Your task to perform on an android device: View the shopping cart on ebay.com. Add usb-a to usb-b to the cart on ebay.com Image 0: 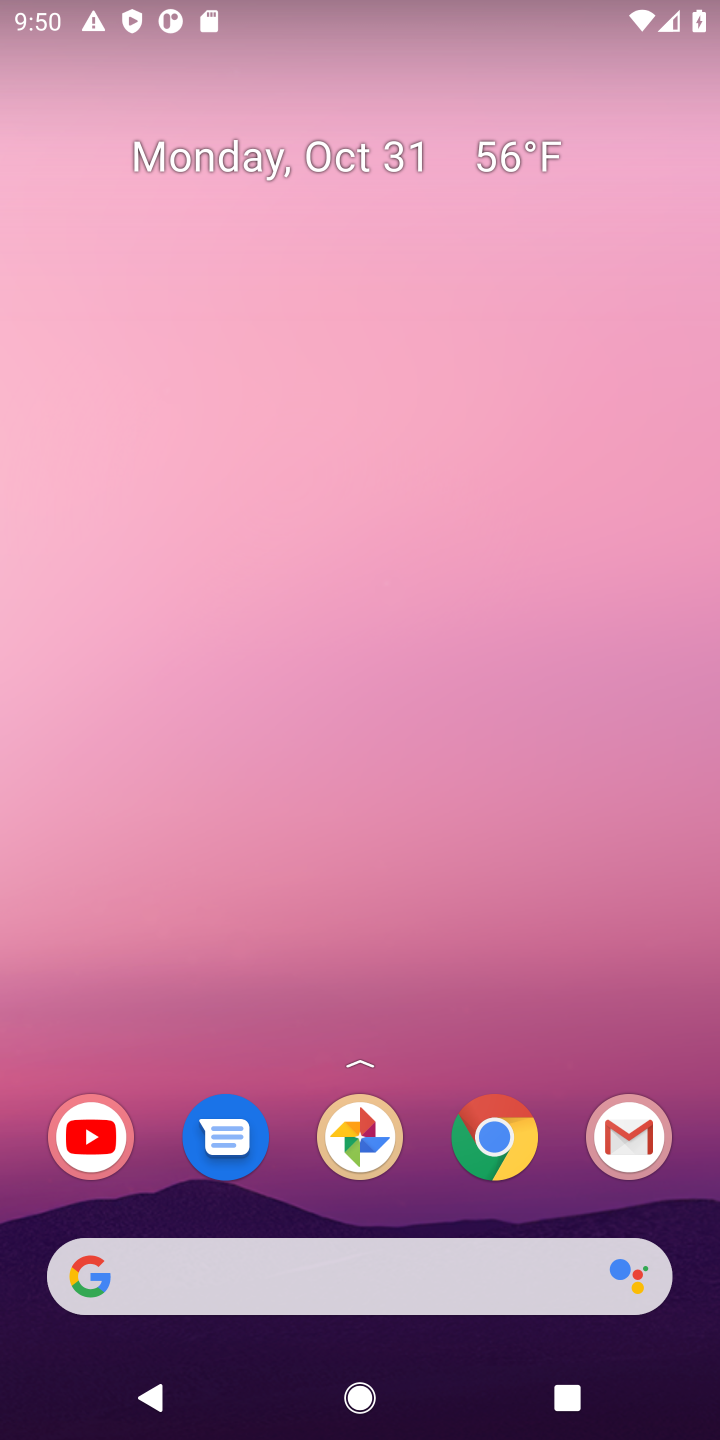
Step 0: click (497, 1140)
Your task to perform on an android device: View the shopping cart on ebay.com. Add usb-a to usb-b to the cart on ebay.com Image 1: 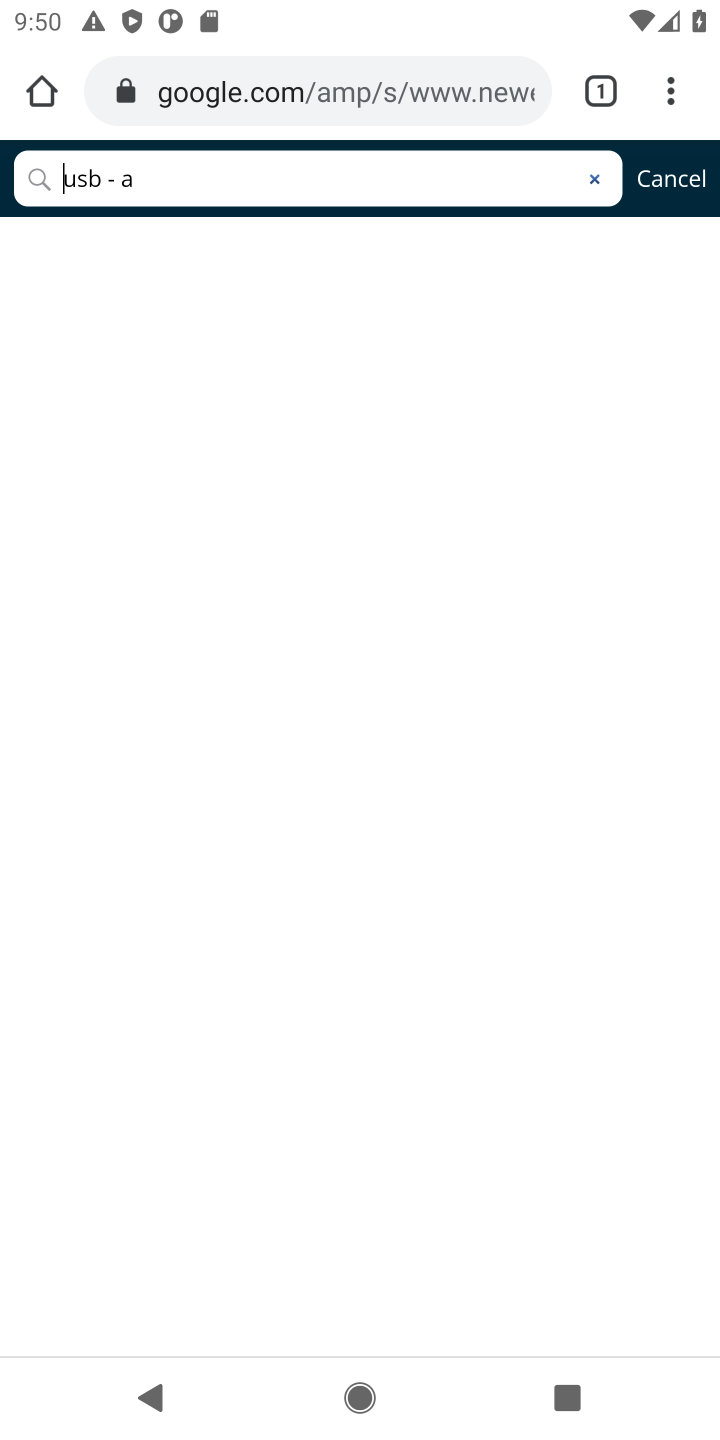
Step 1: click (191, 96)
Your task to perform on an android device: View the shopping cart on ebay.com. Add usb-a to usb-b to the cart on ebay.com Image 2: 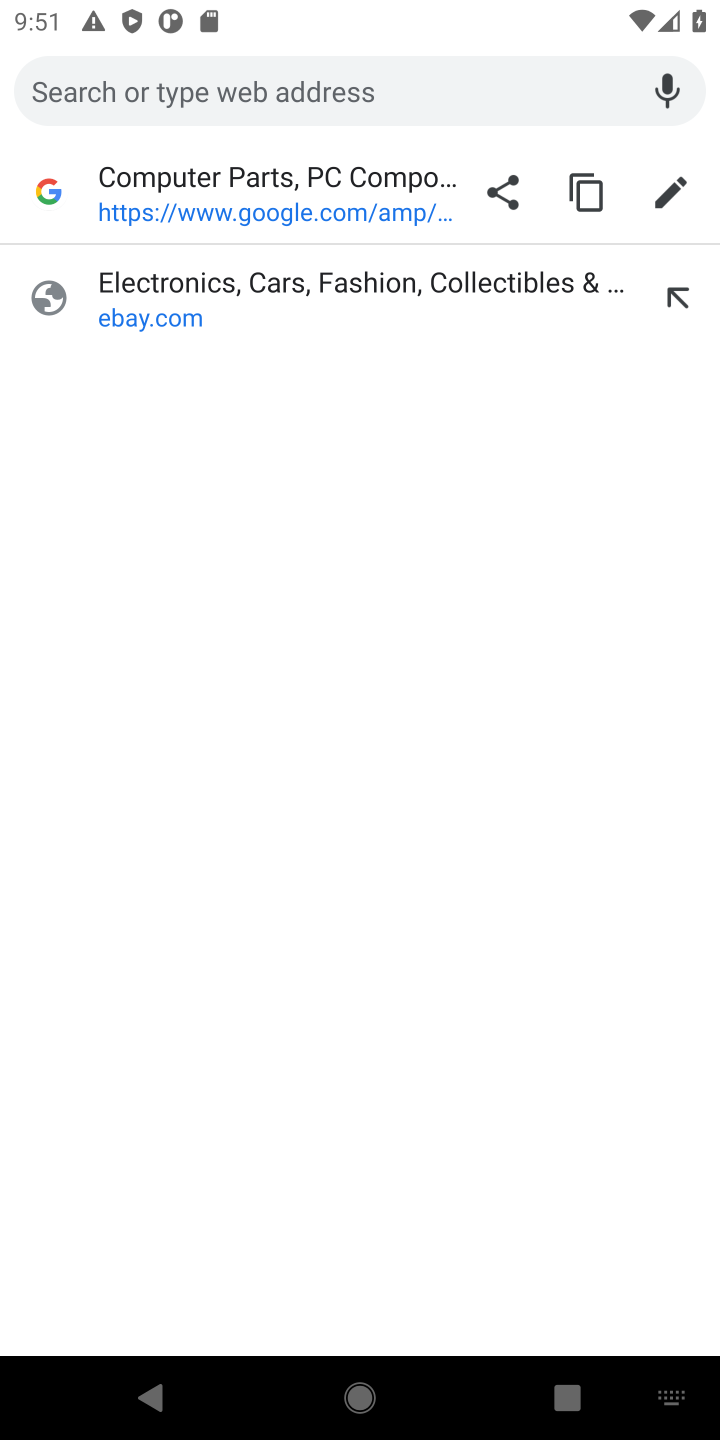
Step 2: type "ebay.com"
Your task to perform on an android device: View the shopping cart on ebay.com. Add usb-a to usb-b to the cart on ebay.com Image 3: 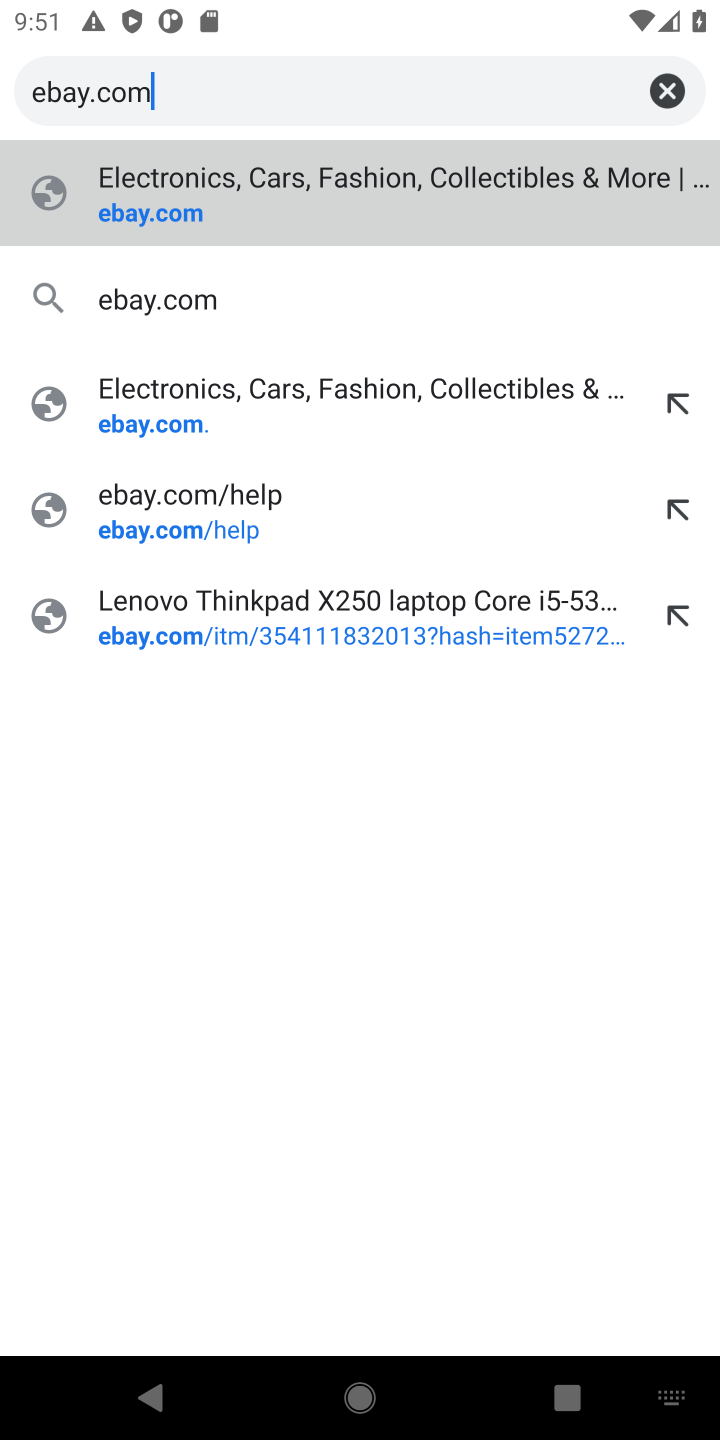
Step 3: click (154, 309)
Your task to perform on an android device: View the shopping cart on ebay.com. Add usb-a to usb-b to the cart on ebay.com Image 4: 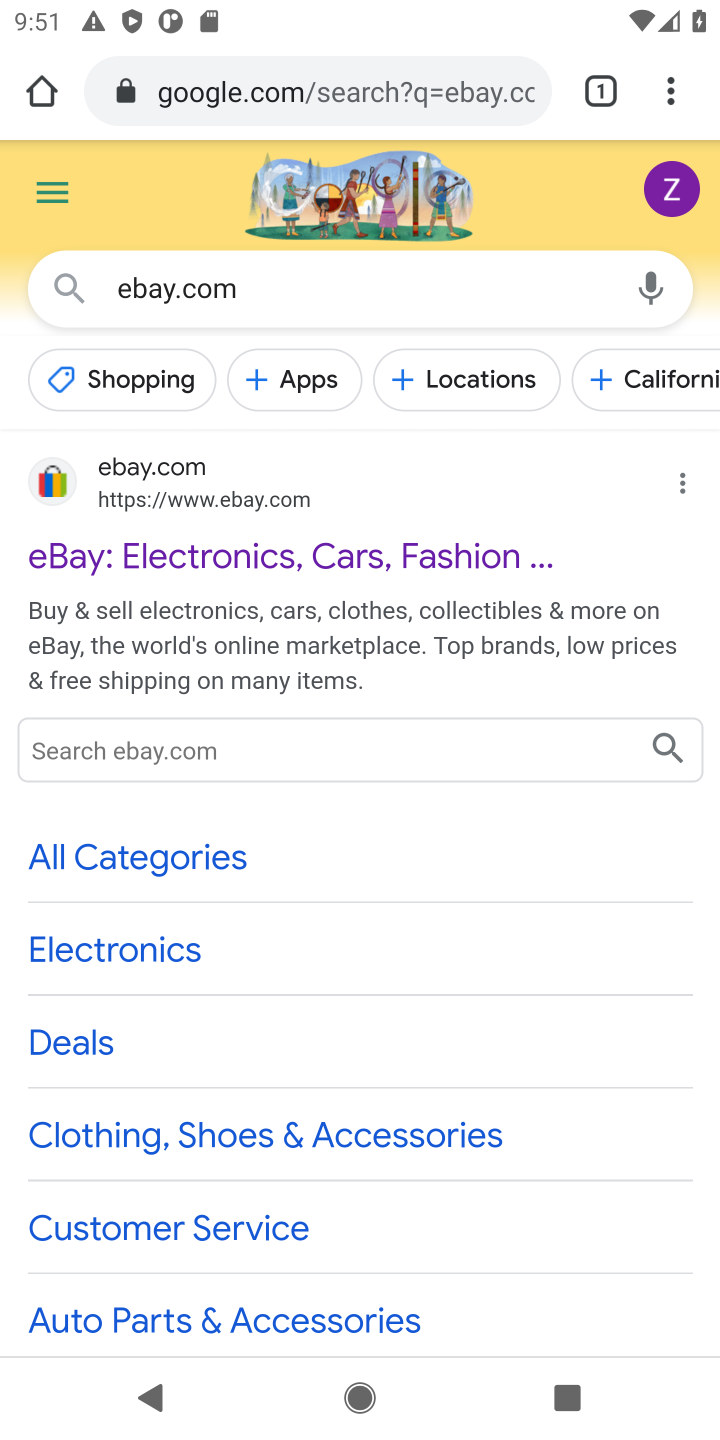
Step 4: click (142, 517)
Your task to perform on an android device: View the shopping cart on ebay.com. Add usb-a to usb-b to the cart on ebay.com Image 5: 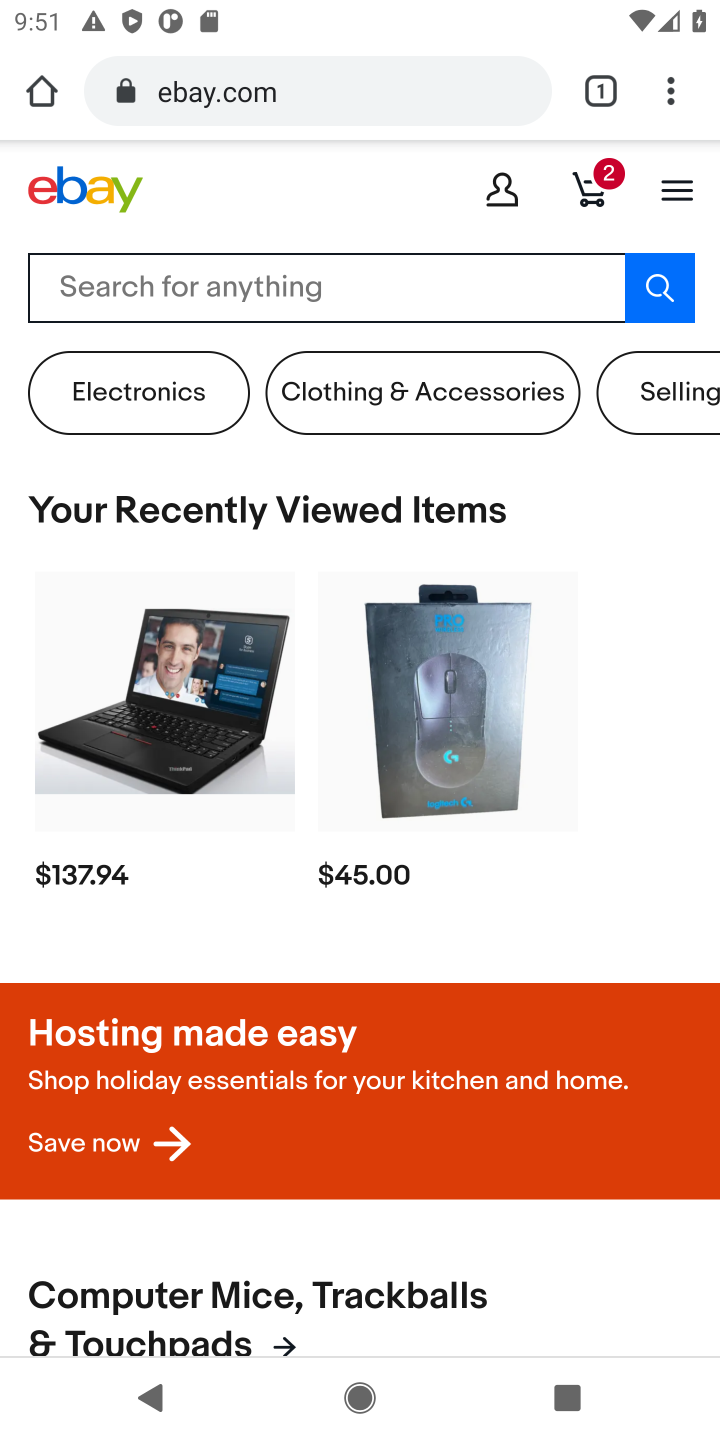
Step 5: click (592, 181)
Your task to perform on an android device: View the shopping cart on ebay.com. Add usb-a to usb-b to the cart on ebay.com Image 6: 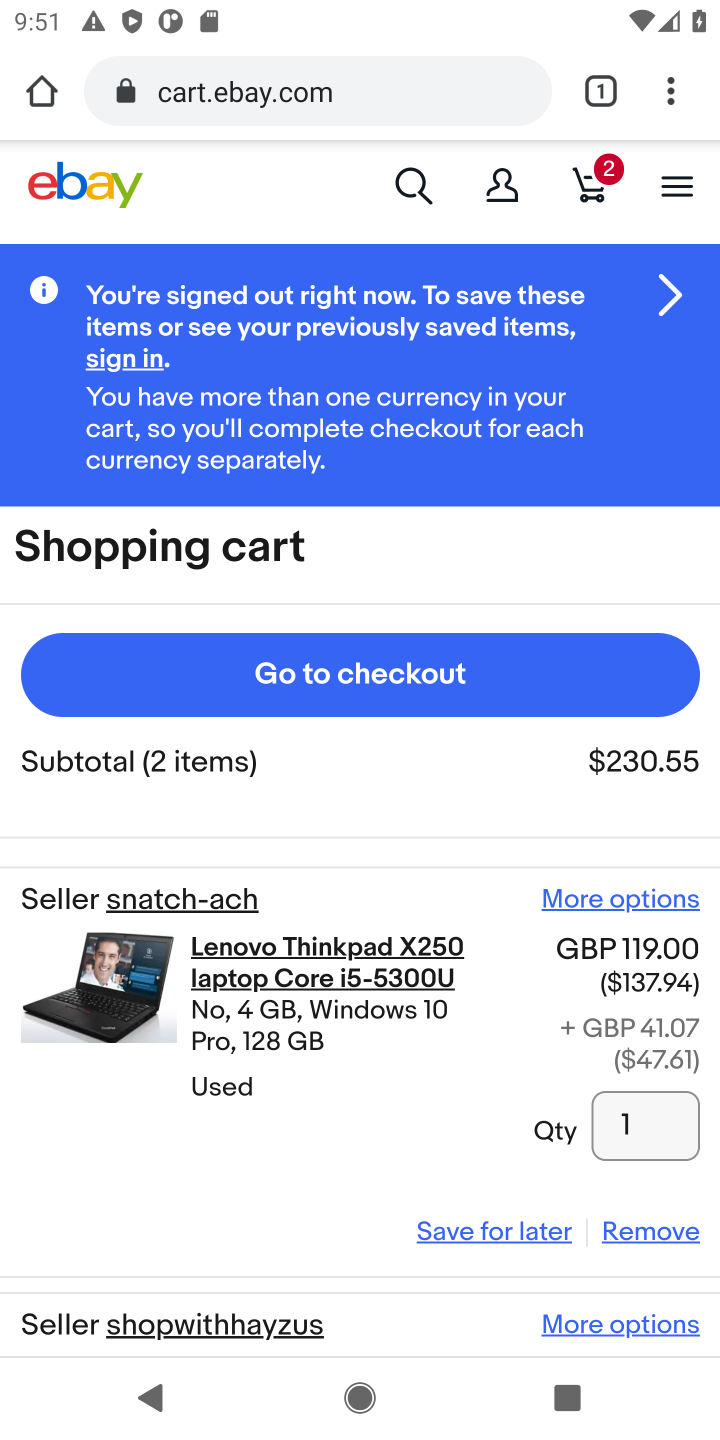
Step 6: click (415, 180)
Your task to perform on an android device: View the shopping cart on ebay.com. Add usb-a to usb-b to the cart on ebay.com Image 7: 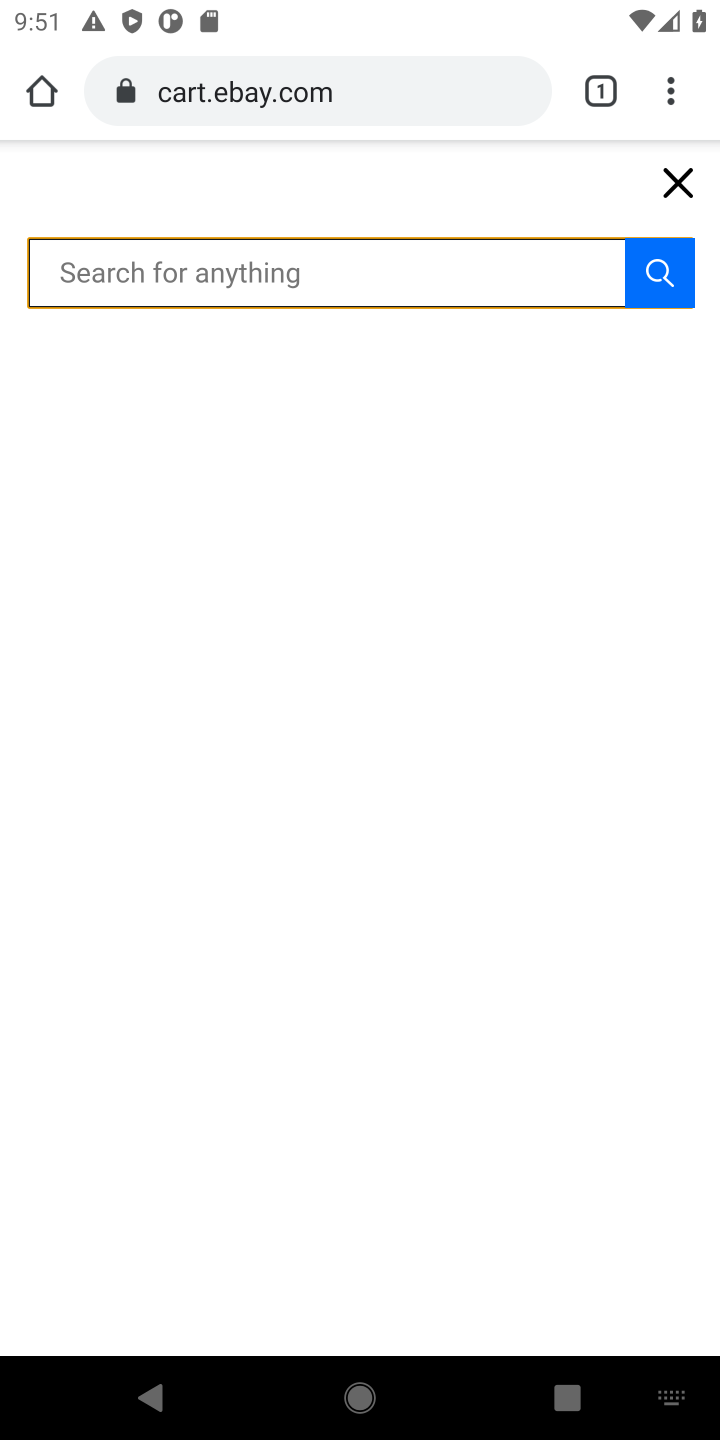
Step 7: type "usb-a to usb-b "
Your task to perform on an android device: View the shopping cart on ebay.com. Add usb-a to usb-b to the cart on ebay.com Image 8: 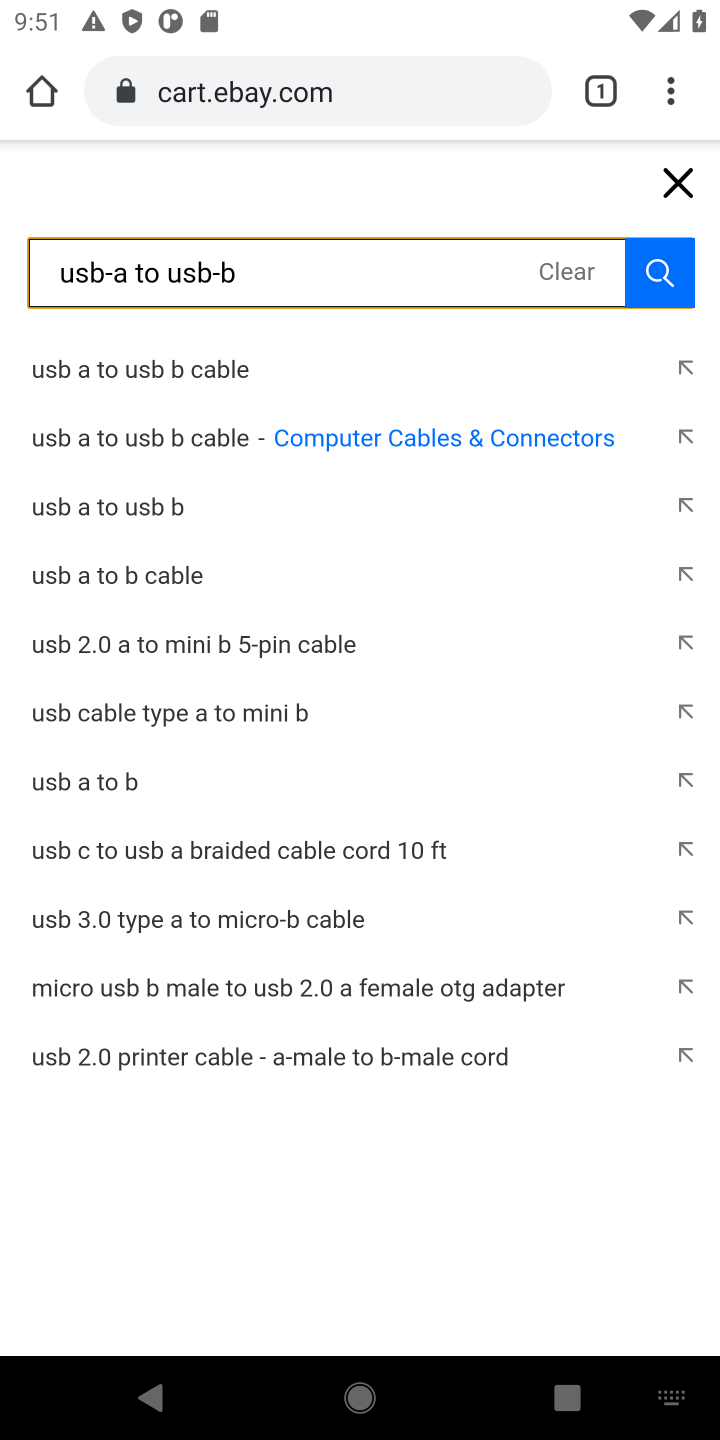
Step 8: click (666, 270)
Your task to perform on an android device: View the shopping cart on ebay.com. Add usb-a to usb-b to the cart on ebay.com Image 9: 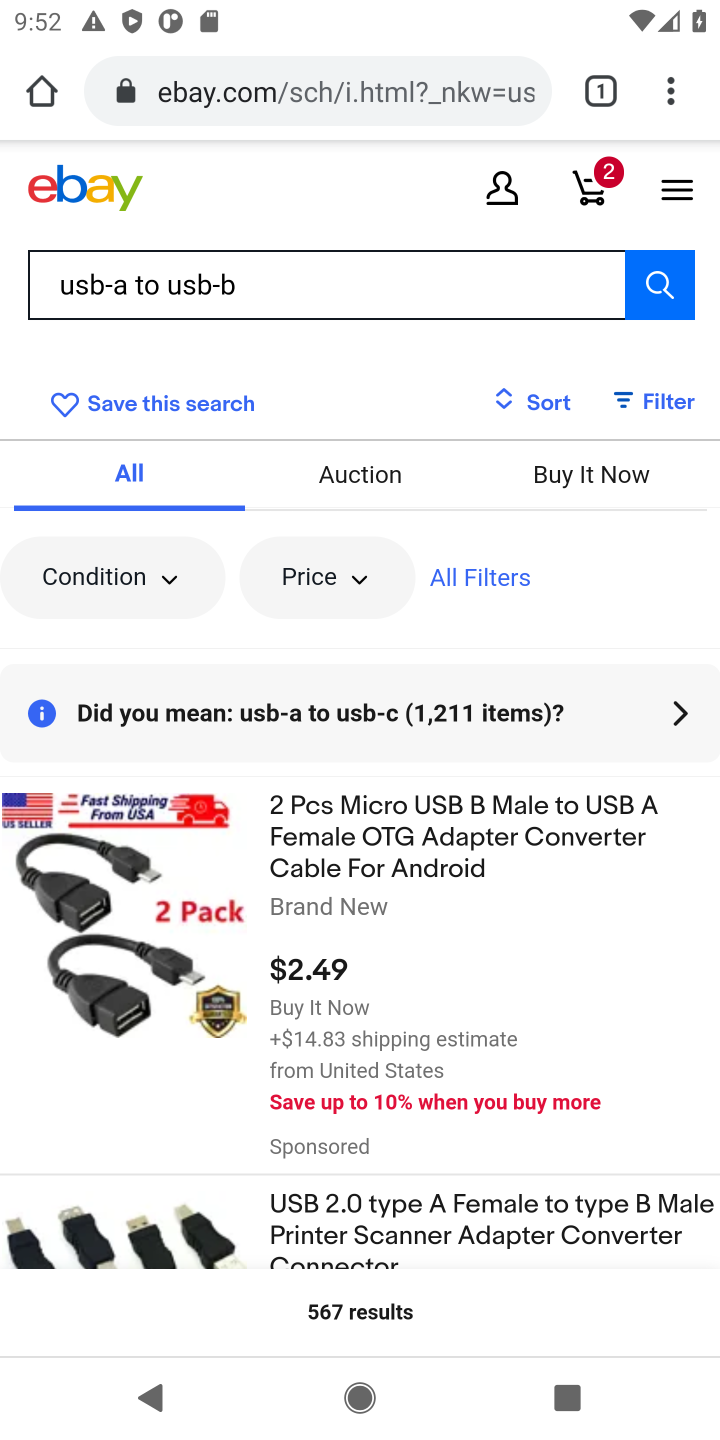
Step 9: click (455, 860)
Your task to perform on an android device: View the shopping cart on ebay.com. Add usb-a to usb-b to the cart on ebay.com Image 10: 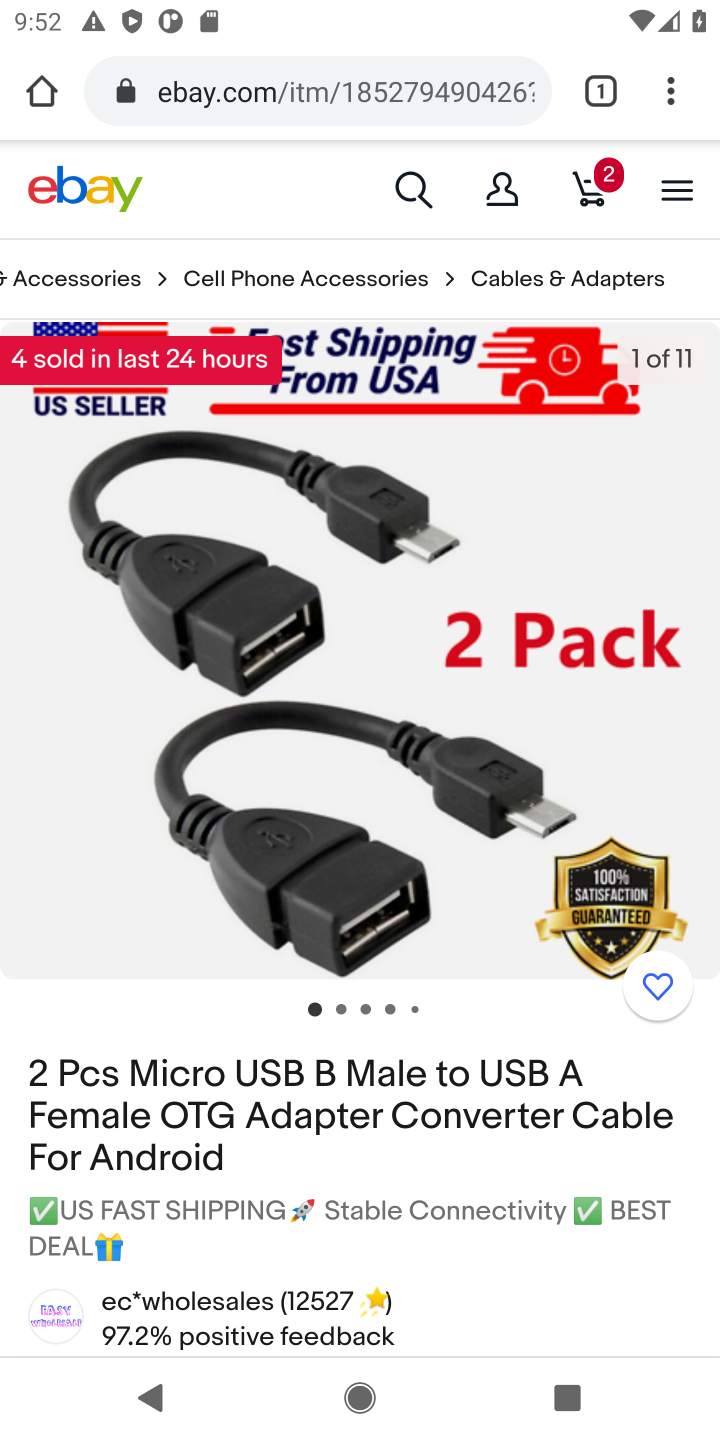
Step 10: drag from (516, 1235) to (501, 613)
Your task to perform on an android device: View the shopping cart on ebay.com. Add usb-a to usb-b to the cart on ebay.com Image 11: 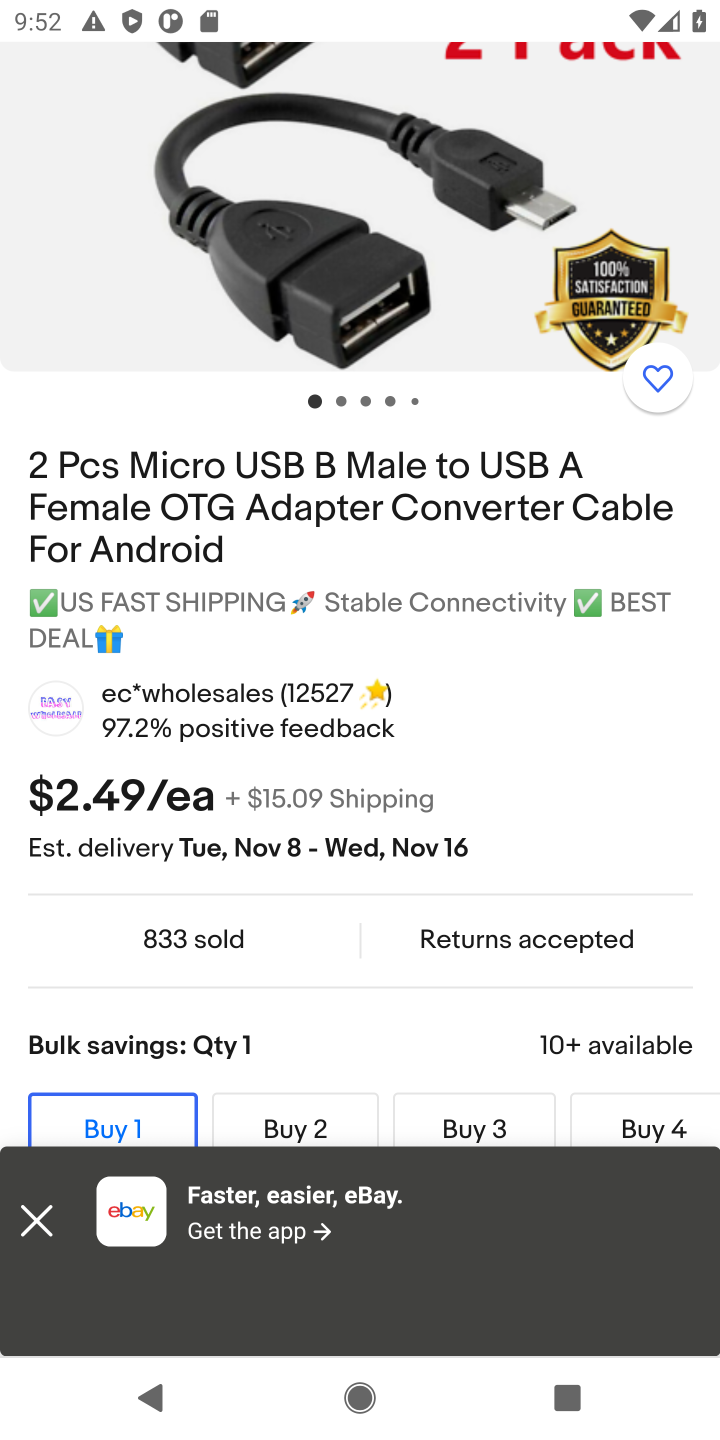
Step 11: drag from (333, 1016) to (324, 566)
Your task to perform on an android device: View the shopping cart on ebay.com. Add usb-a to usb-b to the cart on ebay.com Image 12: 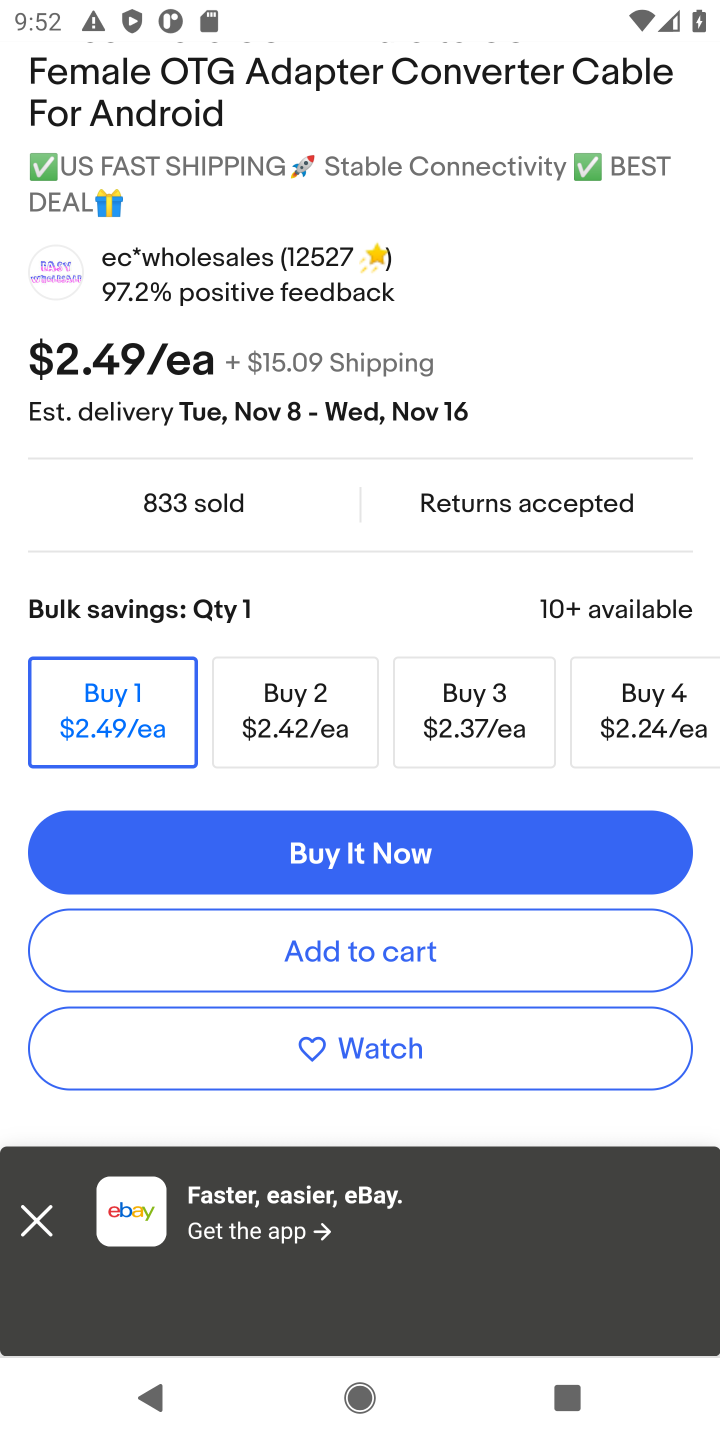
Step 12: click (359, 945)
Your task to perform on an android device: View the shopping cart on ebay.com. Add usb-a to usb-b to the cart on ebay.com Image 13: 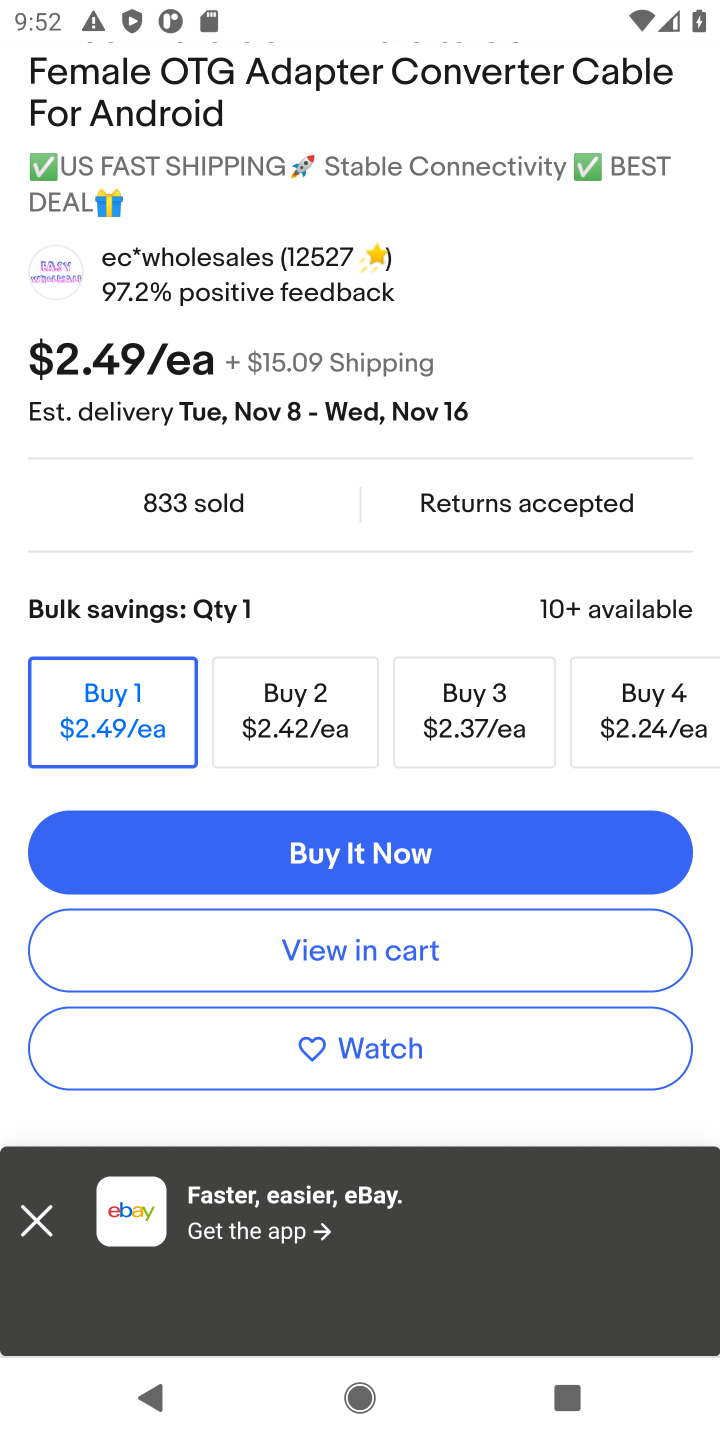
Step 13: drag from (567, 318) to (488, 1163)
Your task to perform on an android device: View the shopping cart on ebay.com. Add usb-a to usb-b to the cart on ebay.com Image 14: 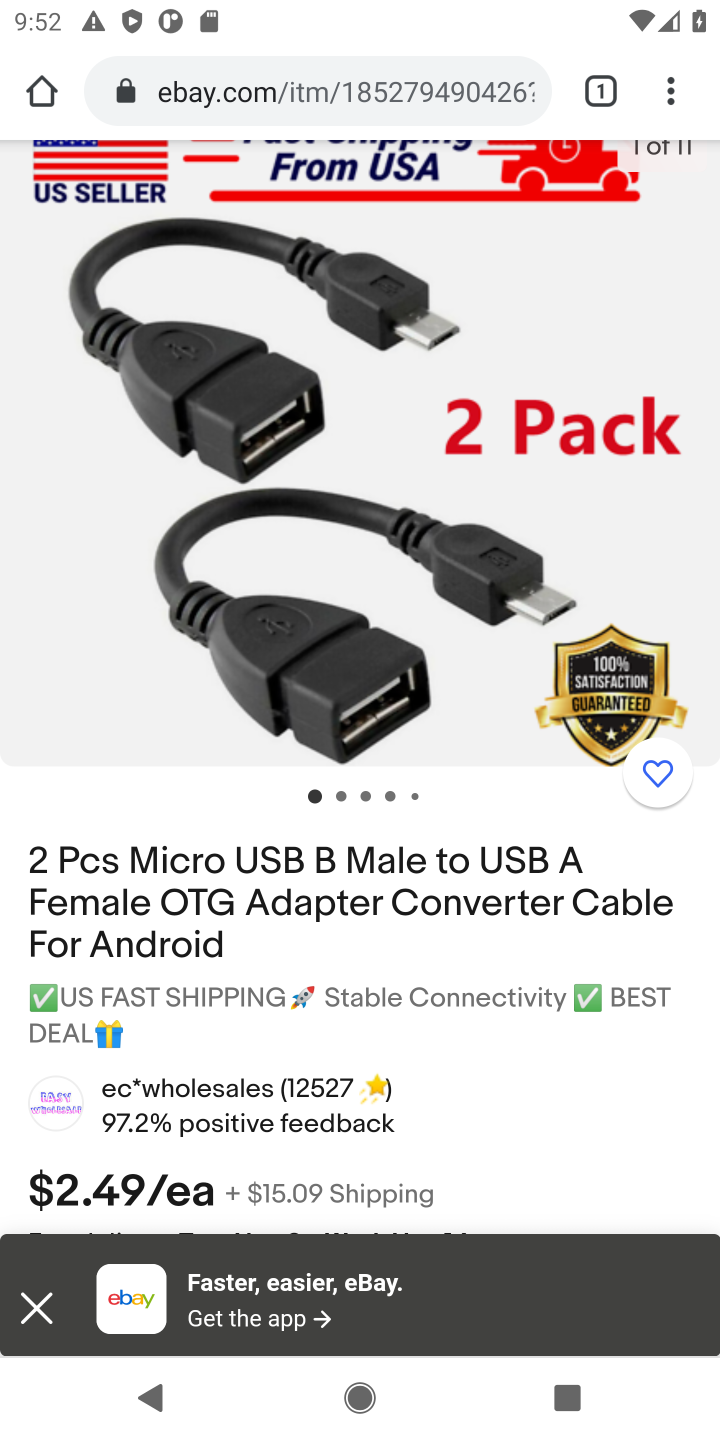
Step 14: drag from (479, 247) to (388, 1167)
Your task to perform on an android device: View the shopping cart on ebay.com. Add usb-a to usb-b to the cart on ebay.com Image 15: 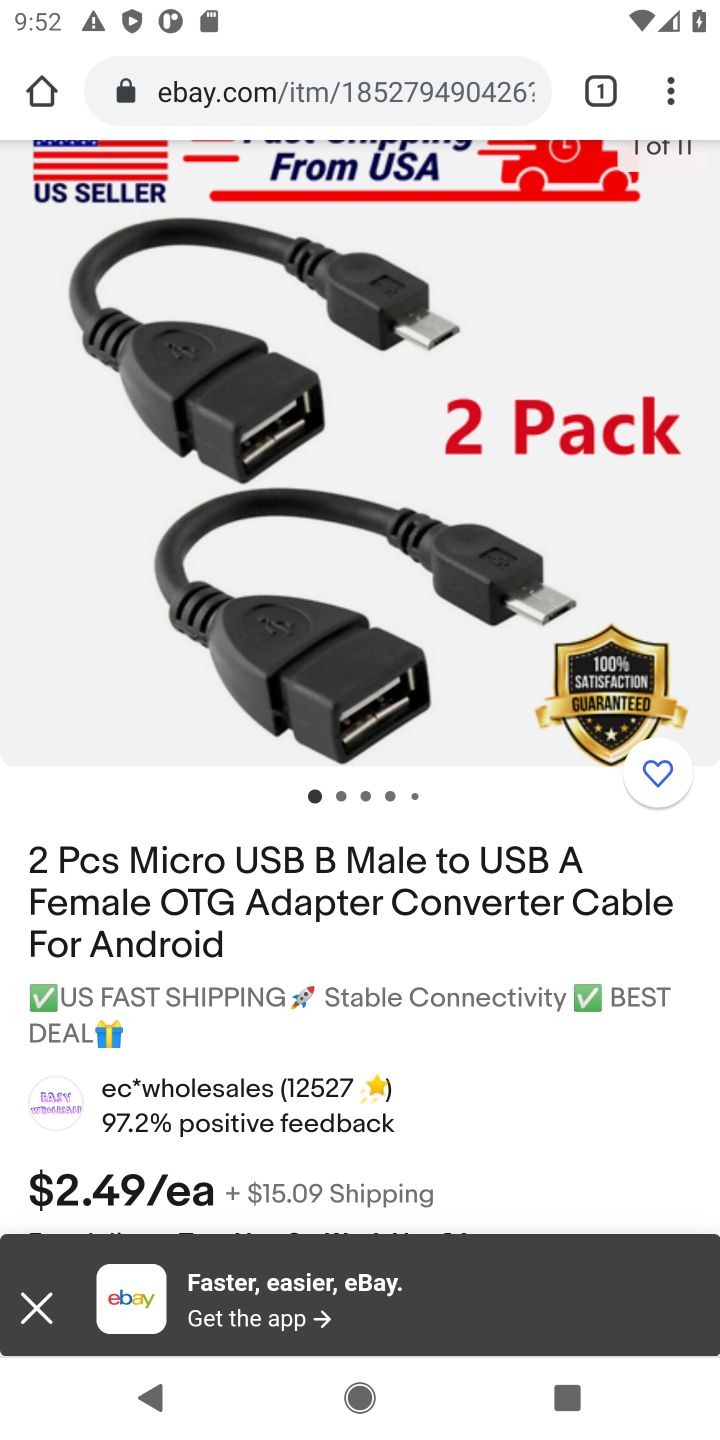
Step 15: click (510, 1060)
Your task to perform on an android device: View the shopping cart on ebay.com. Add usb-a to usb-b to the cart on ebay.com Image 16: 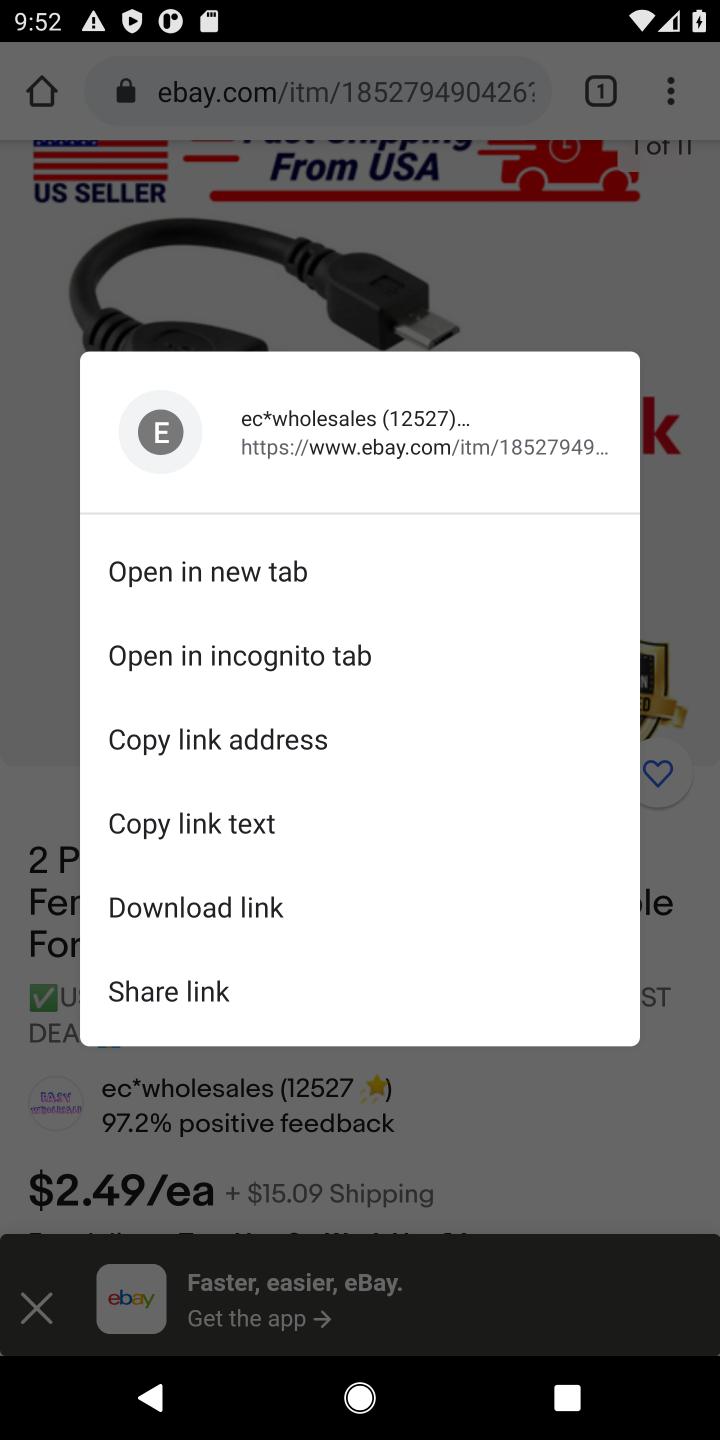
Step 16: click (529, 275)
Your task to perform on an android device: View the shopping cart on ebay.com. Add usb-a to usb-b to the cart on ebay.com Image 17: 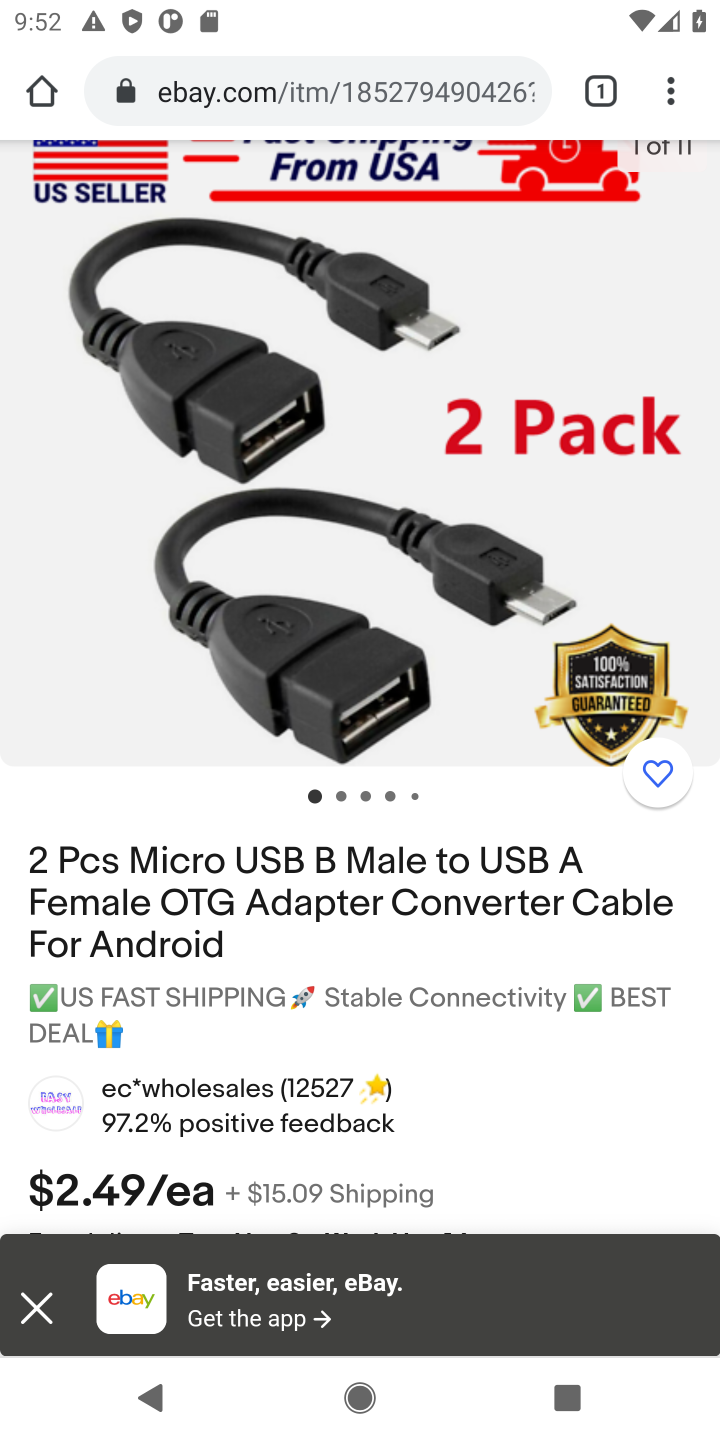
Step 17: task complete